Your task to perform on an android device: toggle priority inbox in the gmail app Image 0: 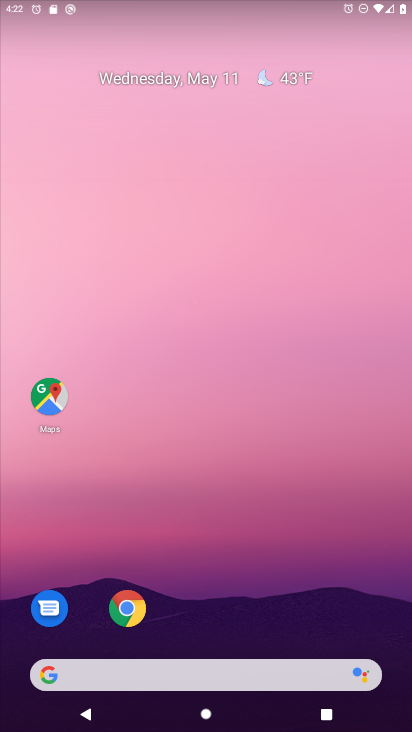
Step 0: drag from (232, 725) to (232, 75)
Your task to perform on an android device: toggle priority inbox in the gmail app Image 1: 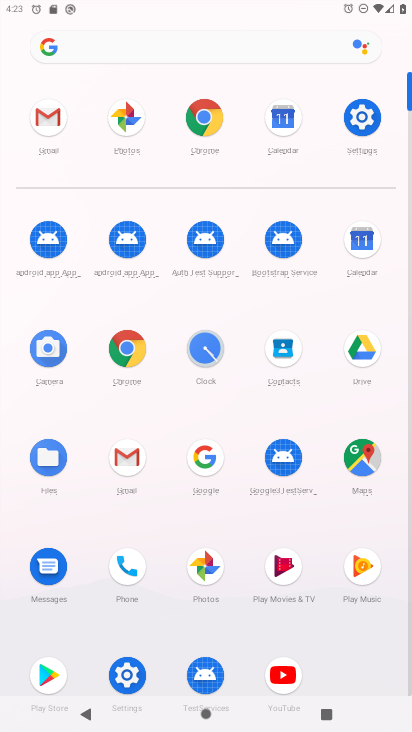
Step 1: click (130, 455)
Your task to perform on an android device: toggle priority inbox in the gmail app Image 2: 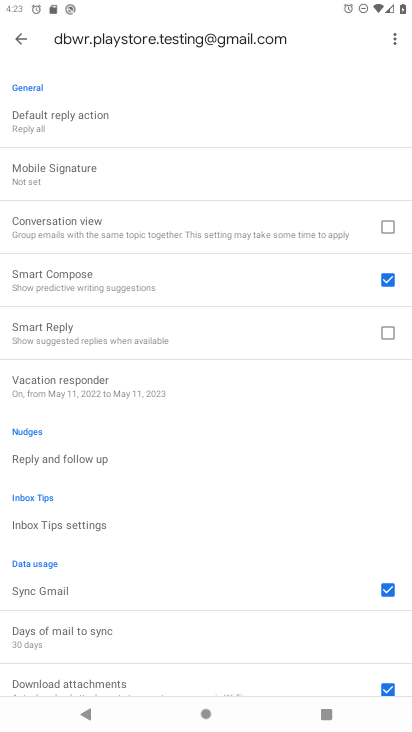
Step 2: drag from (108, 144) to (148, 471)
Your task to perform on an android device: toggle priority inbox in the gmail app Image 3: 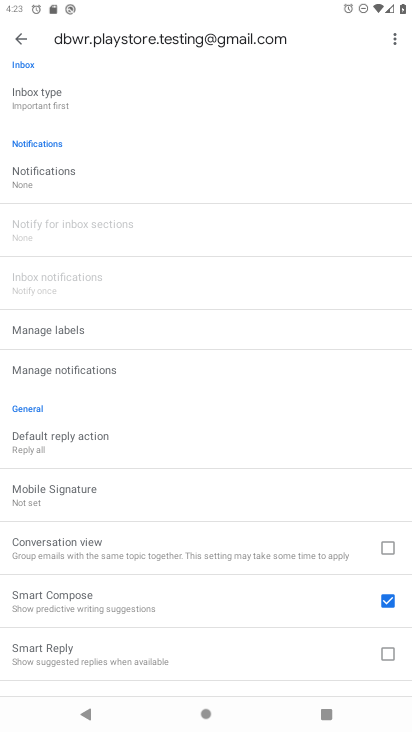
Step 3: drag from (90, 119) to (123, 501)
Your task to perform on an android device: toggle priority inbox in the gmail app Image 4: 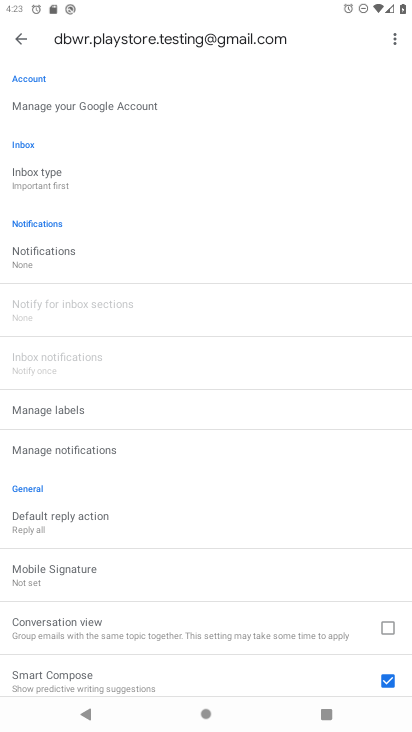
Step 4: click (55, 181)
Your task to perform on an android device: toggle priority inbox in the gmail app Image 5: 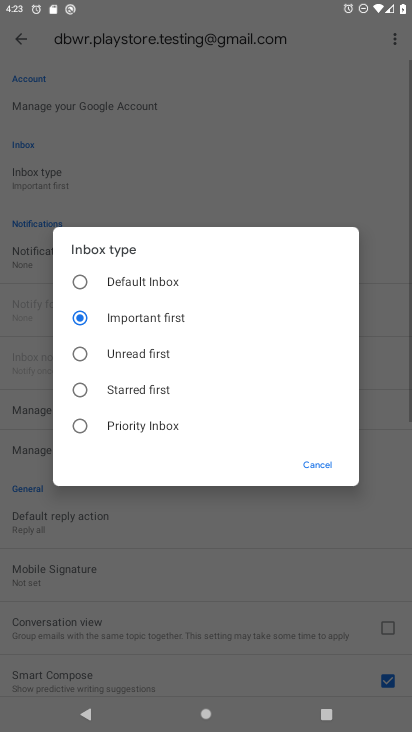
Step 5: click (130, 428)
Your task to perform on an android device: toggle priority inbox in the gmail app Image 6: 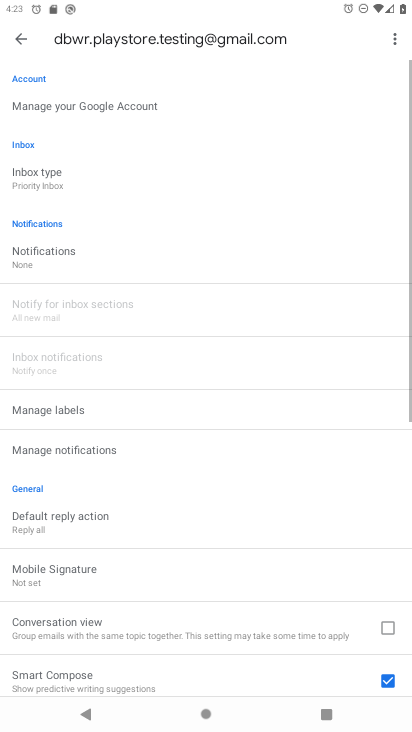
Step 6: task complete